Your task to perform on an android device: toggle airplane mode Image 0: 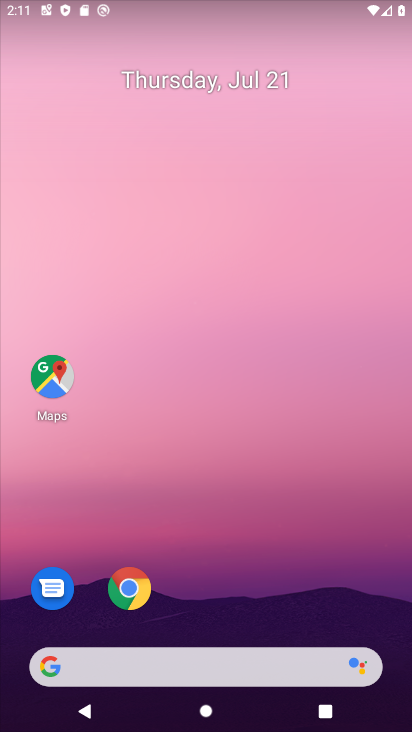
Step 0: click (208, 183)
Your task to perform on an android device: toggle airplane mode Image 1: 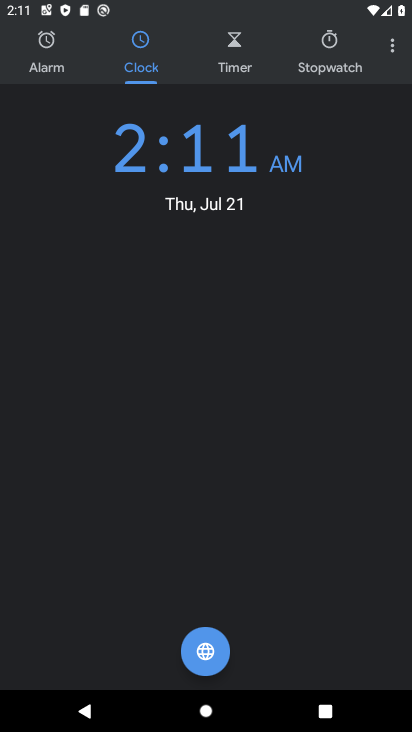
Step 1: drag from (195, 565) to (234, 139)
Your task to perform on an android device: toggle airplane mode Image 2: 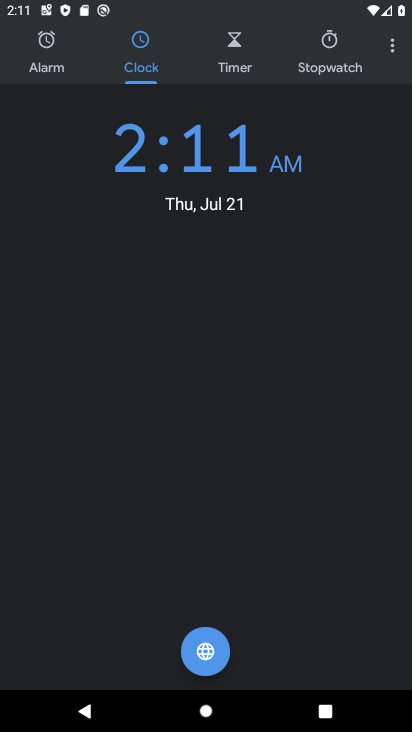
Step 2: press home button
Your task to perform on an android device: toggle airplane mode Image 3: 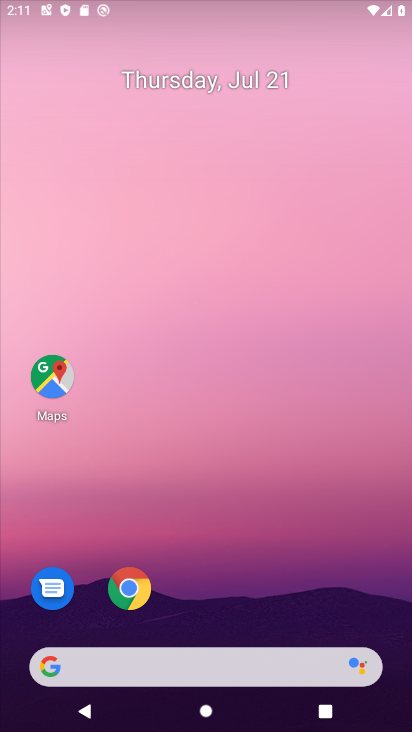
Step 3: drag from (215, 629) to (263, 79)
Your task to perform on an android device: toggle airplane mode Image 4: 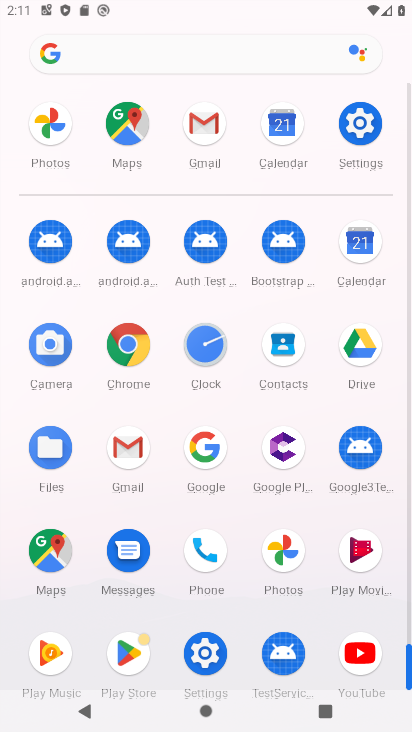
Step 4: click (351, 136)
Your task to perform on an android device: toggle airplane mode Image 5: 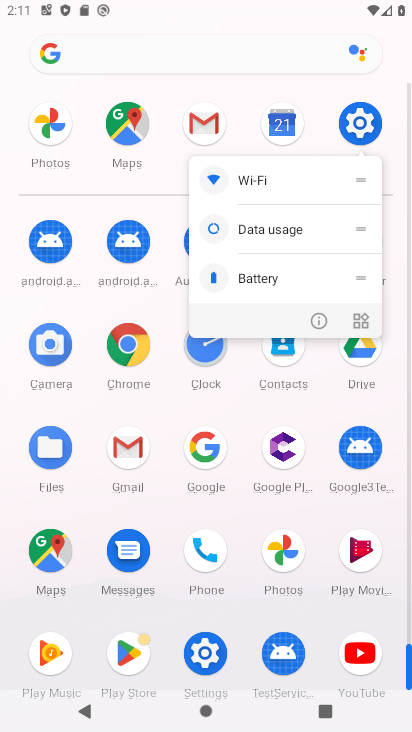
Step 5: click (318, 311)
Your task to perform on an android device: toggle airplane mode Image 6: 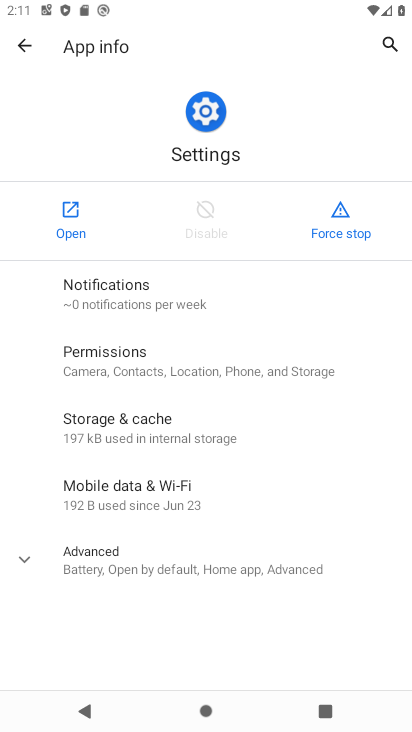
Step 6: click (79, 207)
Your task to perform on an android device: toggle airplane mode Image 7: 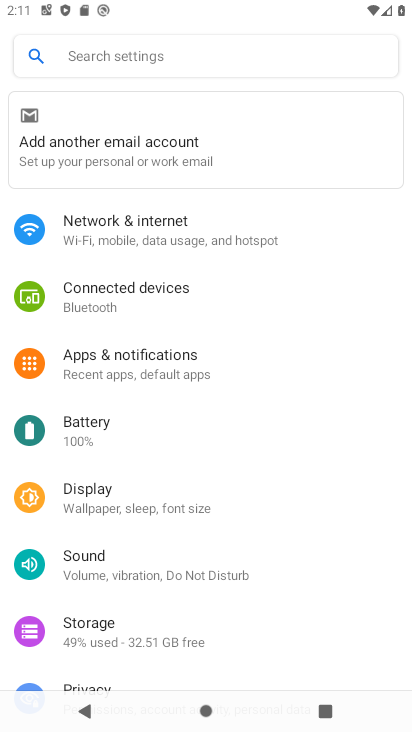
Step 7: click (163, 227)
Your task to perform on an android device: toggle airplane mode Image 8: 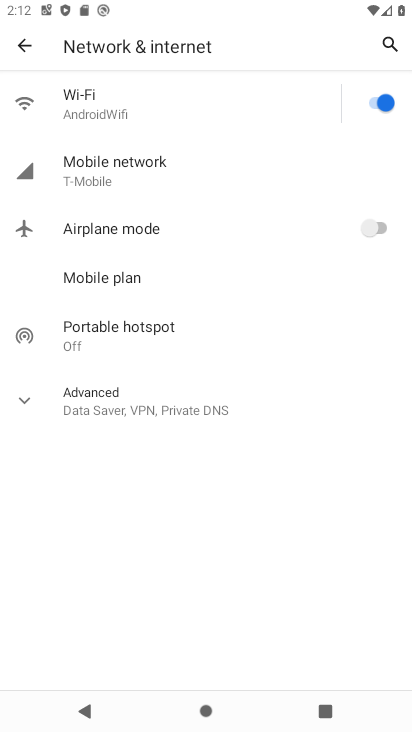
Step 8: drag from (216, 386) to (238, 170)
Your task to perform on an android device: toggle airplane mode Image 9: 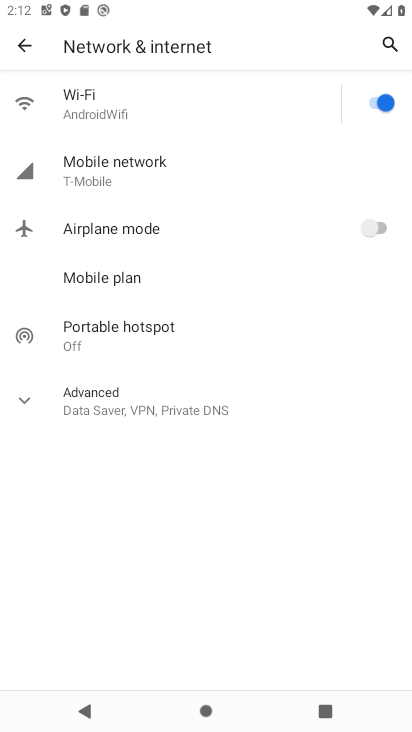
Step 9: drag from (182, 172) to (246, 608)
Your task to perform on an android device: toggle airplane mode Image 10: 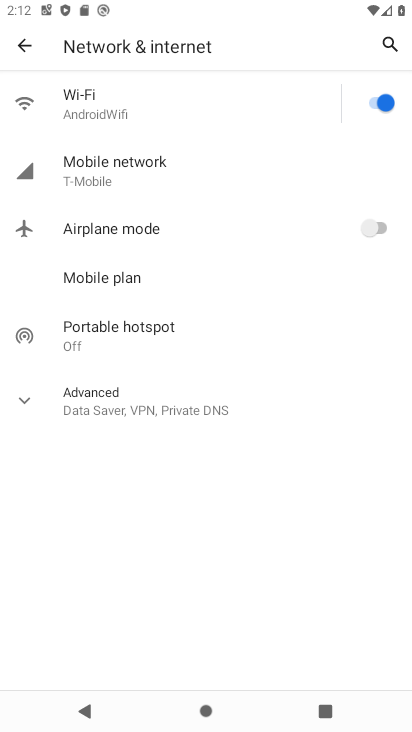
Step 10: click (159, 229)
Your task to perform on an android device: toggle airplane mode Image 11: 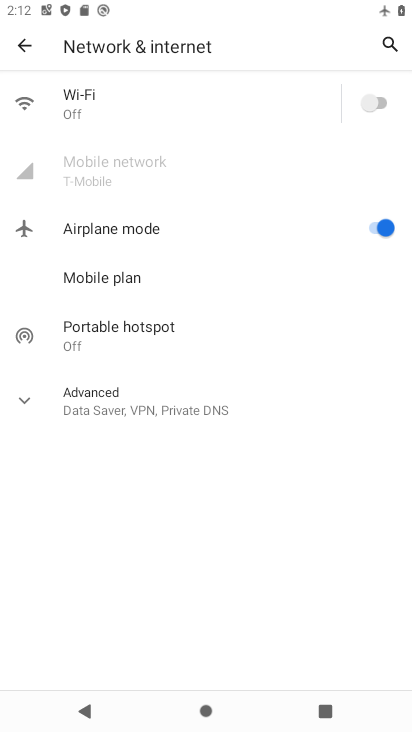
Step 11: task complete